Your task to perform on an android device: Open settings Image 0: 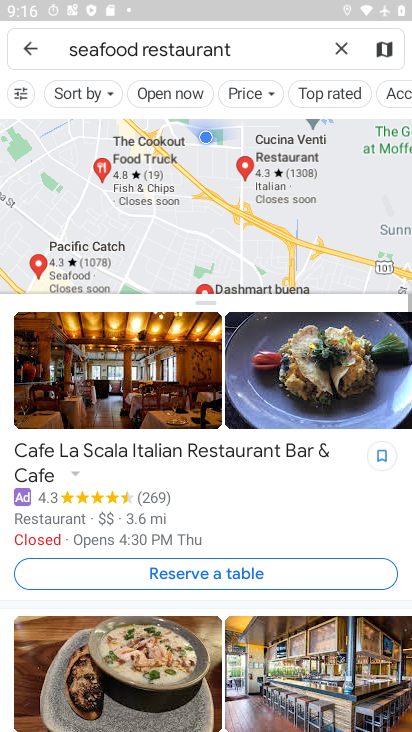
Step 0: press home button
Your task to perform on an android device: Open settings Image 1: 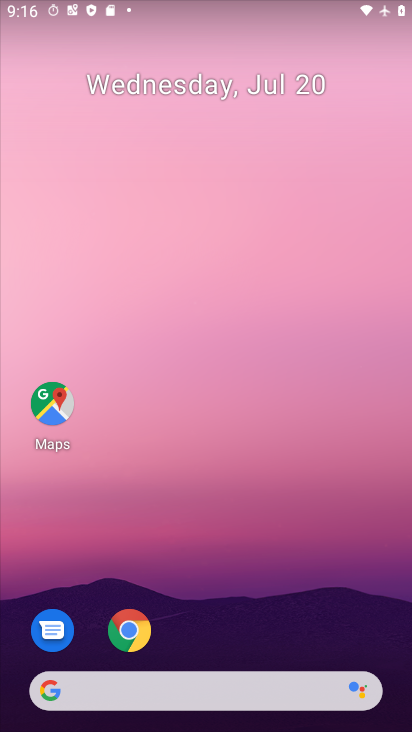
Step 1: drag from (256, 667) to (235, 187)
Your task to perform on an android device: Open settings Image 2: 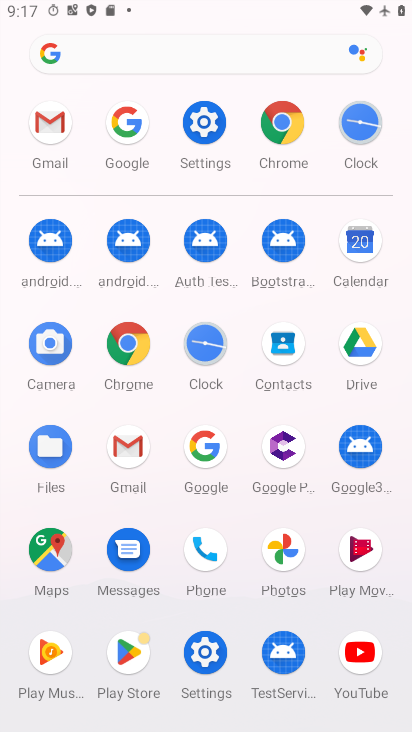
Step 2: click (212, 674)
Your task to perform on an android device: Open settings Image 3: 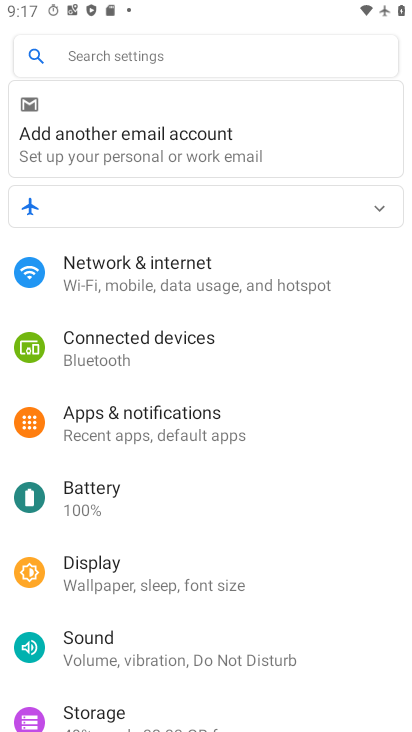
Step 3: task complete